Your task to perform on an android device: check google app version Image 0: 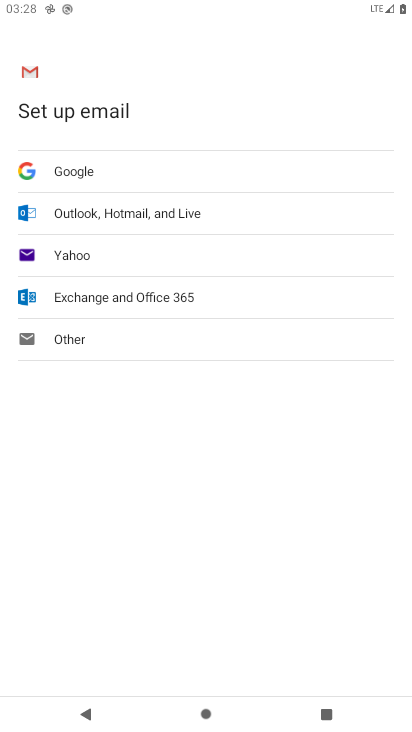
Step 0: press home button
Your task to perform on an android device: check google app version Image 1: 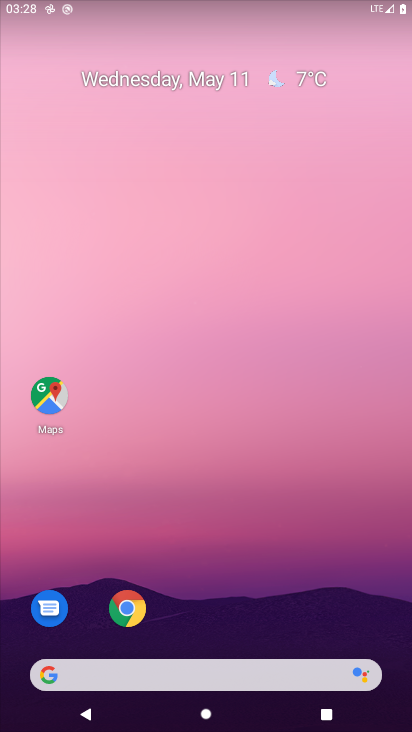
Step 1: drag from (202, 627) to (252, 101)
Your task to perform on an android device: check google app version Image 2: 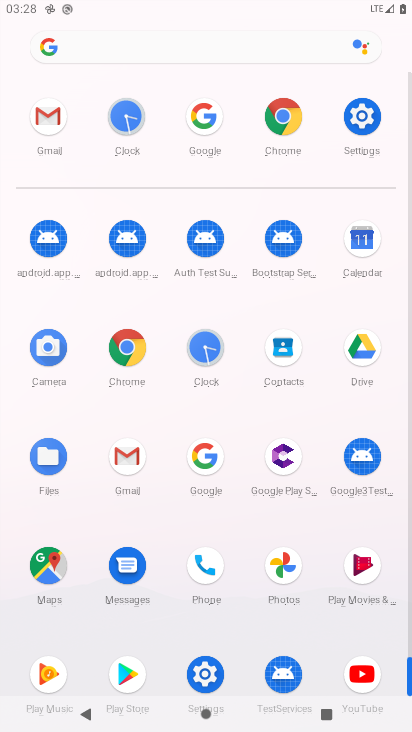
Step 2: click (206, 451)
Your task to perform on an android device: check google app version Image 3: 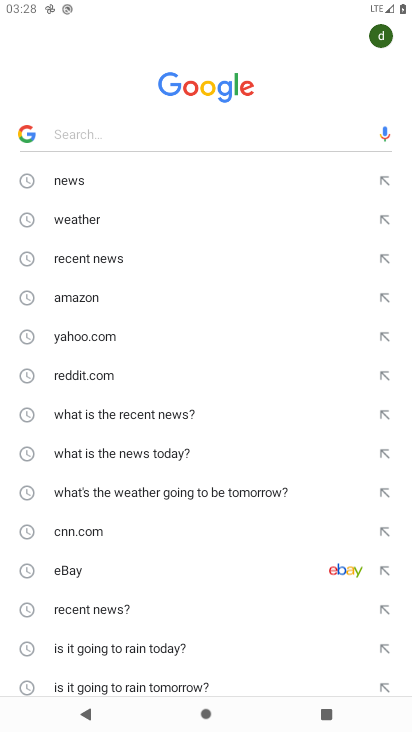
Step 3: press back button
Your task to perform on an android device: check google app version Image 4: 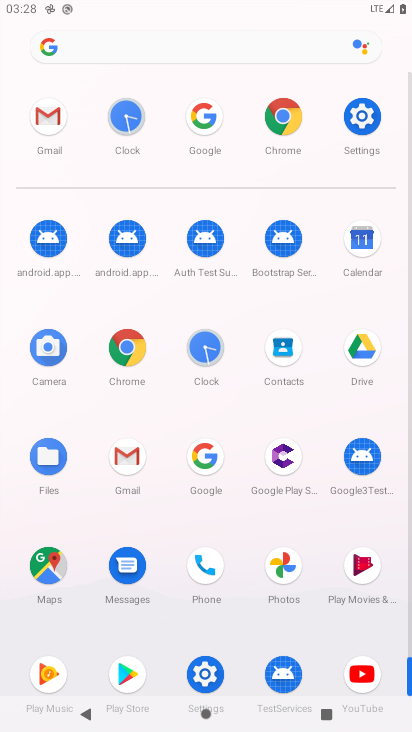
Step 4: click (198, 455)
Your task to perform on an android device: check google app version Image 5: 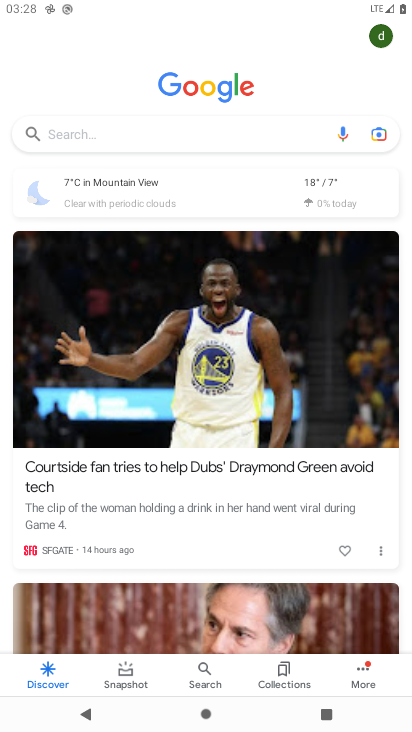
Step 5: click (359, 668)
Your task to perform on an android device: check google app version Image 6: 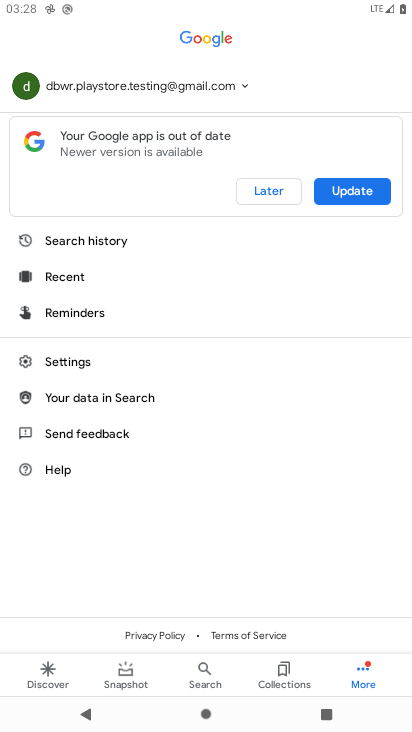
Step 6: click (80, 361)
Your task to perform on an android device: check google app version Image 7: 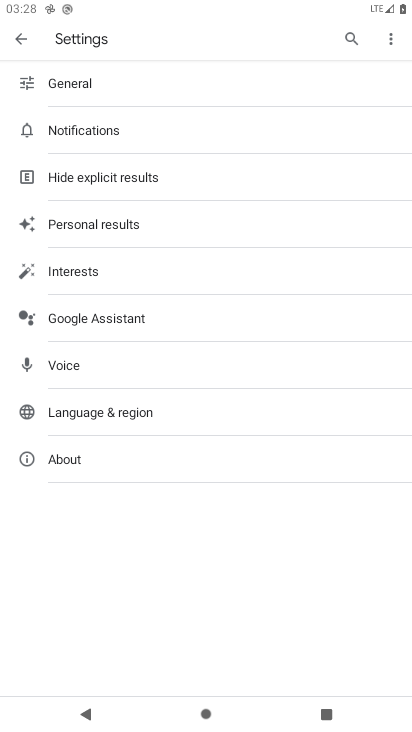
Step 7: click (99, 457)
Your task to perform on an android device: check google app version Image 8: 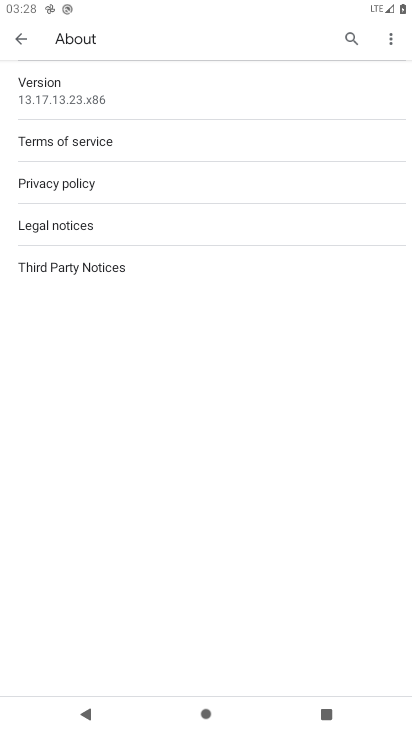
Step 8: task complete